Your task to perform on an android device: turn on translation in the chrome app Image 0: 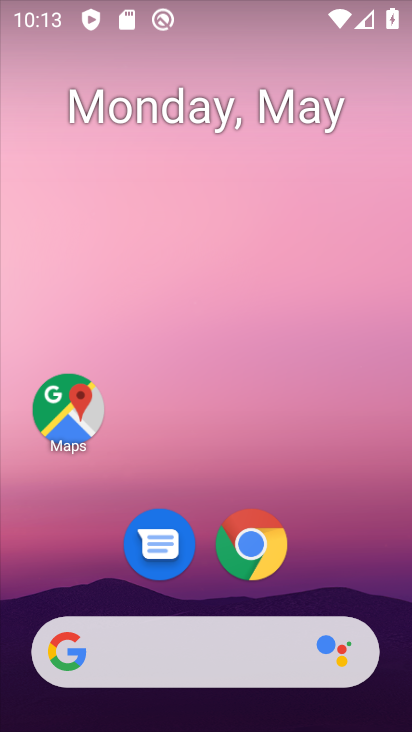
Step 0: drag from (349, 605) to (345, 292)
Your task to perform on an android device: turn on translation in the chrome app Image 1: 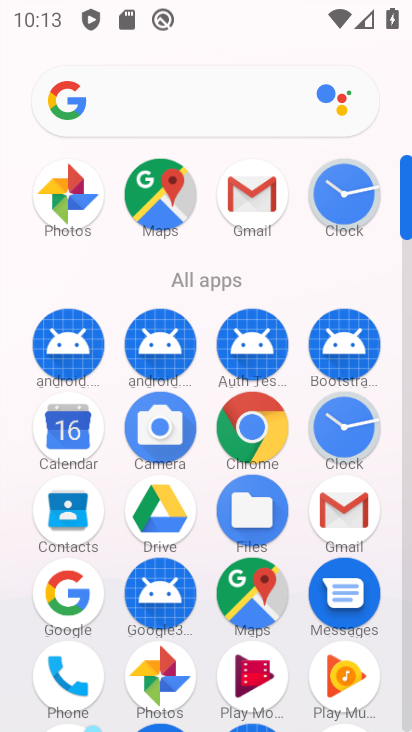
Step 1: drag from (239, 610) to (280, 380)
Your task to perform on an android device: turn on translation in the chrome app Image 2: 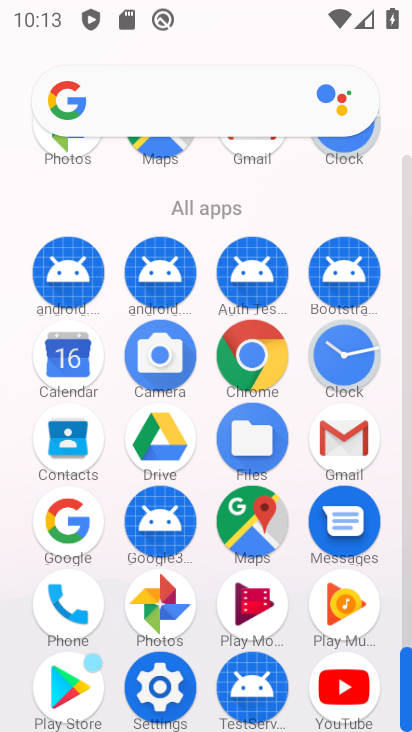
Step 2: click (253, 362)
Your task to perform on an android device: turn on translation in the chrome app Image 3: 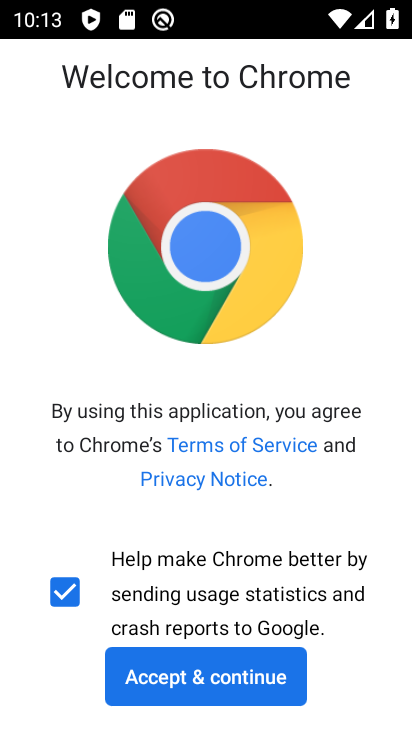
Step 3: click (359, 128)
Your task to perform on an android device: turn on translation in the chrome app Image 4: 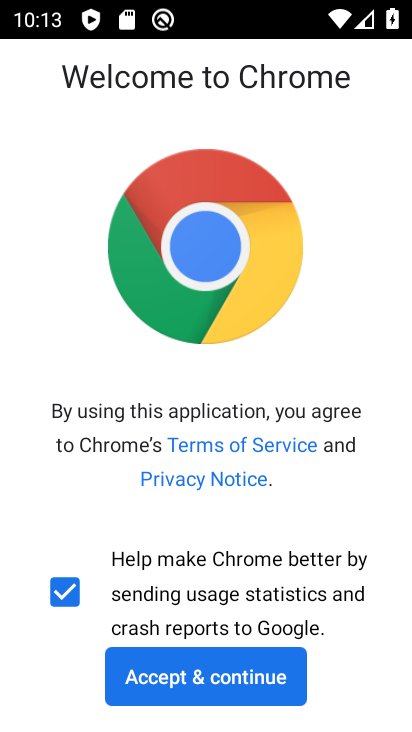
Step 4: click (223, 657)
Your task to perform on an android device: turn on translation in the chrome app Image 5: 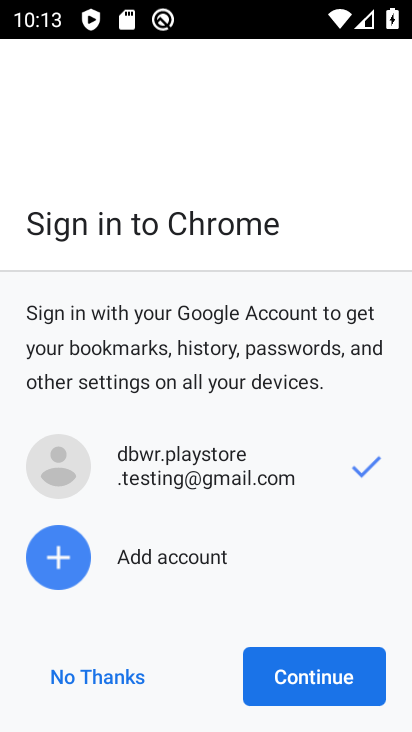
Step 5: click (204, 659)
Your task to perform on an android device: turn on translation in the chrome app Image 6: 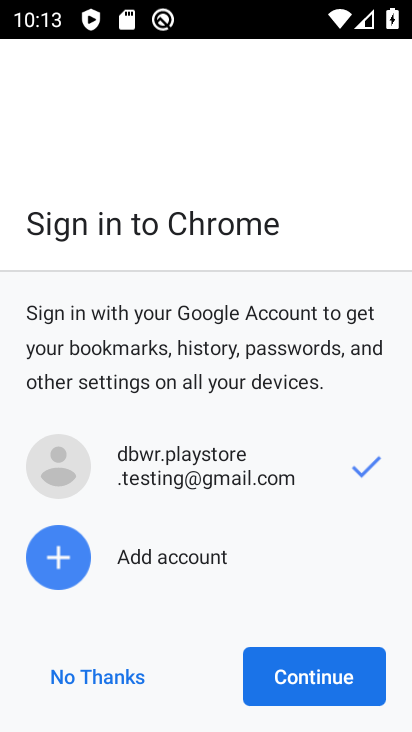
Step 6: click (281, 658)
Your task to perform on an android device: turn on translation in the chrome app Image 7: 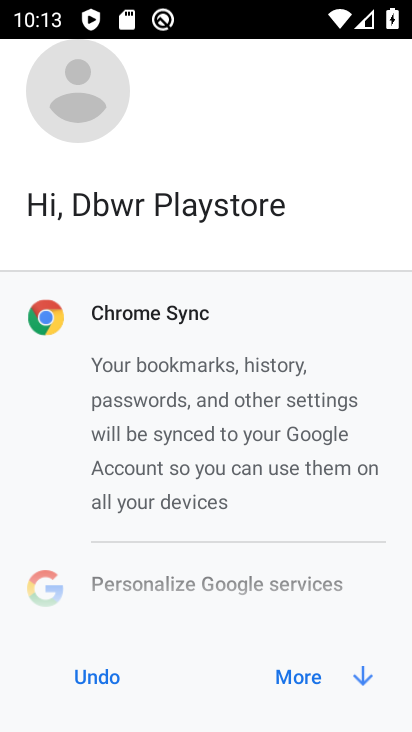
Step 7: drag from (195, 606) to (214, 425)
Your task to perform on an android device: turn on translation in the chrome app Image 8: 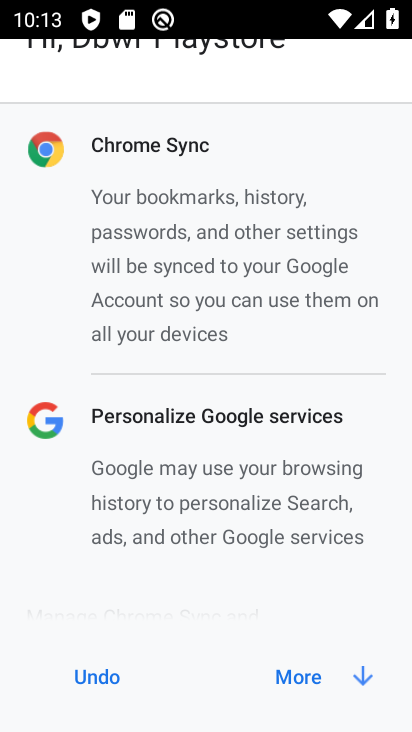
Step 8: click (111, 675)
Your task to perform on an android device: turn on translation in the chrome app Image 9: 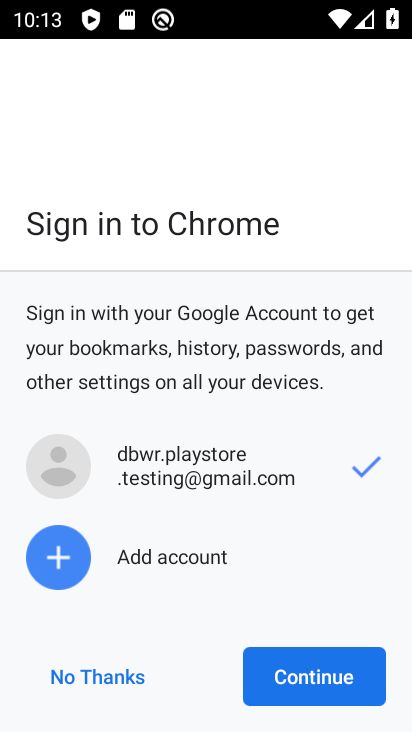
Step 9: click (137, 679)
Your task to perform on an android device: turn on translation in the chrome app Image 10: 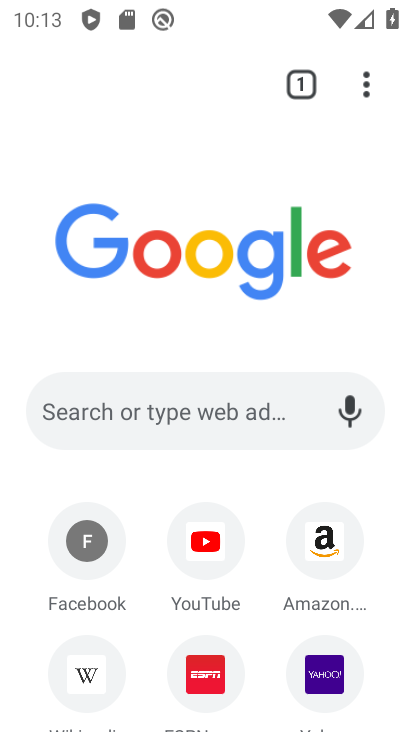
Step 10: drag from (358, 80) to (176, 605)
Your task to perform on an android device: turn on translation in the chrome app Image 11: 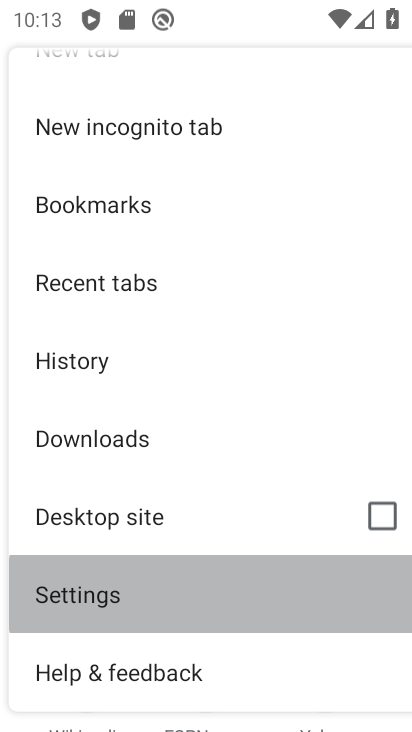
Step 11: click (175, 593)
Your task to perform on an android device: turn on translation in the chrome app Image 12: 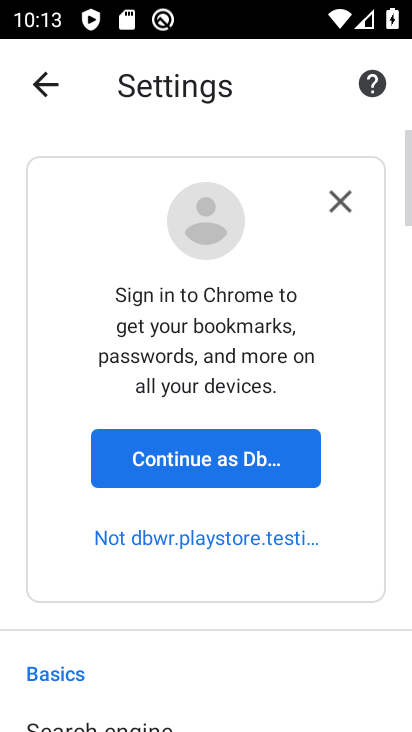
Step 12: drag from (188, 608) to (187, 201)
Your task to perform on an android device: turn on translation in the chrome app Image 13: 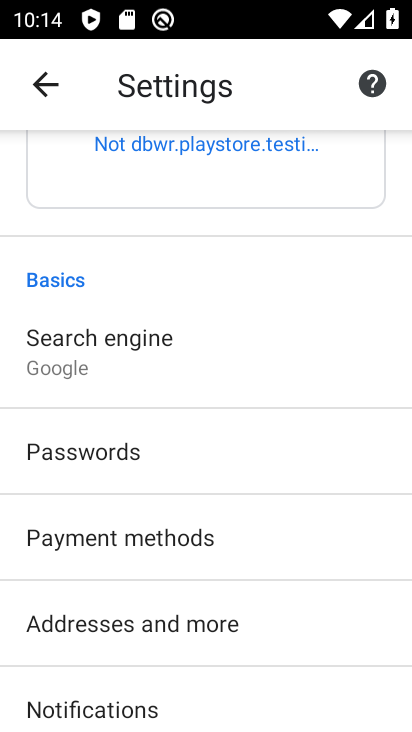
Step 13: drag from (175, 635) to (187, 362)
Your task to perform on an android device: turn on translation in the chrome app Image 14: 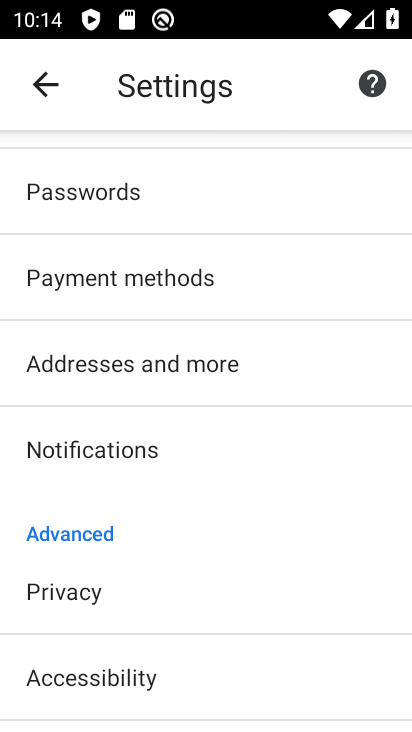
Step 14: drag from (252, 648) to (233, 261)
Your task to perform on an android device: turn on translation in the chrome app Image 15: 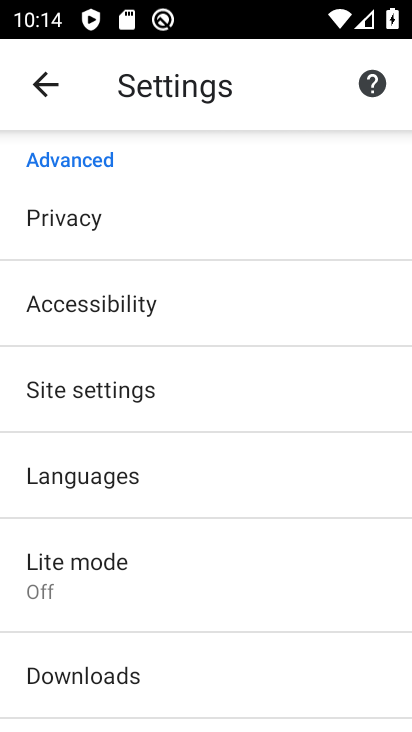
Step 15: click (167, 499)
Your task to perform on an android device: turn on translation in the chrome app Image 16: 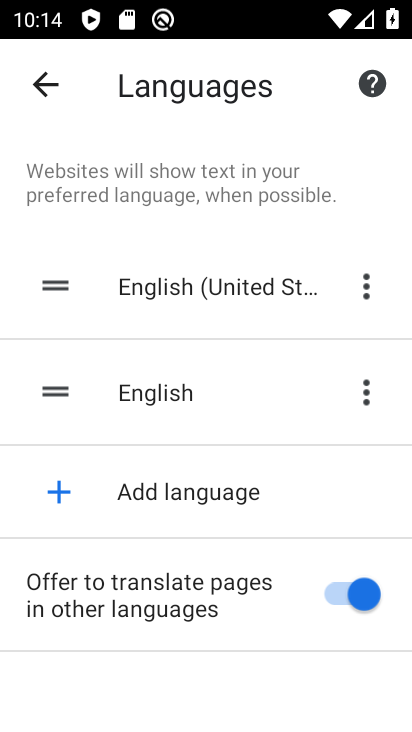
Step 16: task complete